Your task to perform on an android device: change timer sound Image 0: 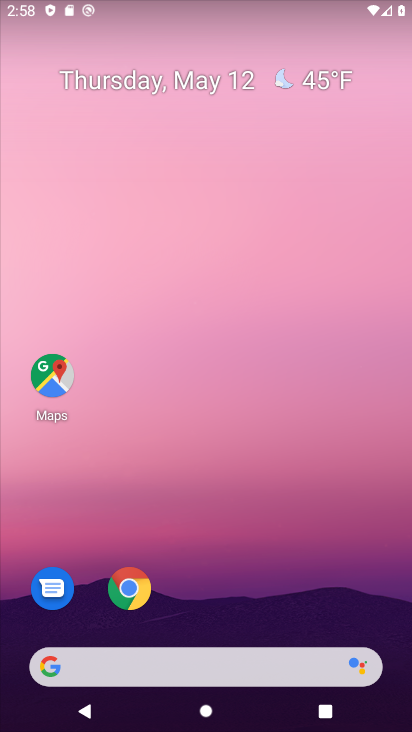
Step 0: drag from (229, 574) to (244, 273)
Your task to perform on an android device: change timer sound Image 1: 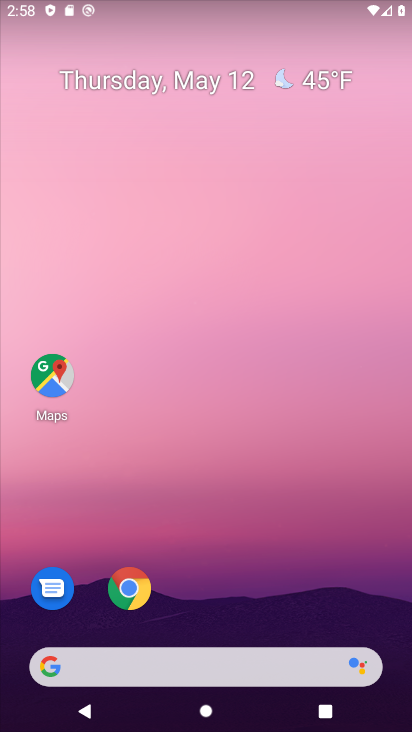
Step 1: drag from (244, 579) to (286, 61)
Your task to perform on an android device: change timer sound Image 2: 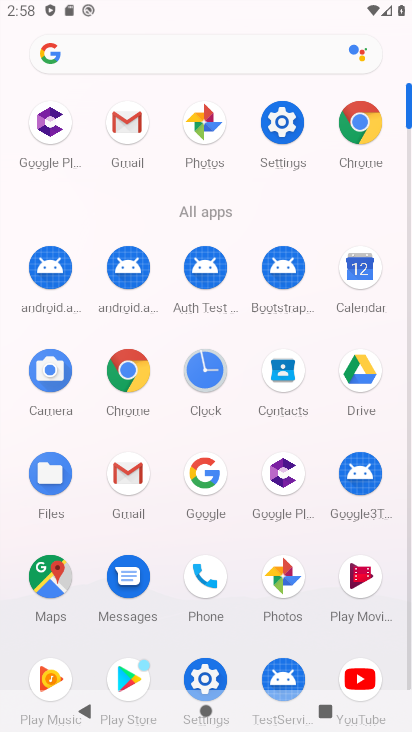
Step 2: click (205, 410)
Your task to perform on an android device: change timer sound Image 3: 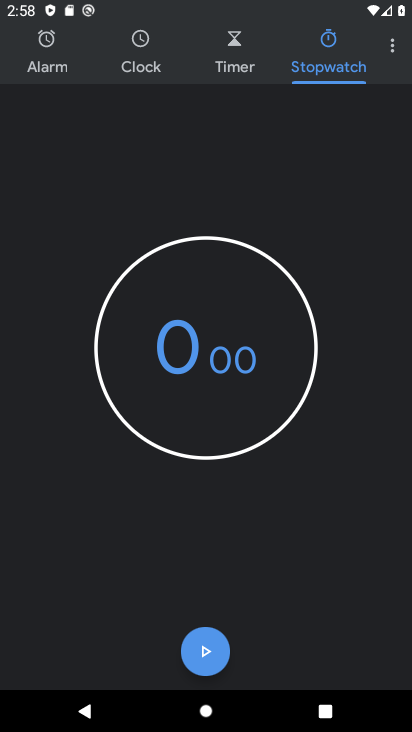
Step 3: click (211, 378)
Your task to perform on an android device: change timer sound Image 4: 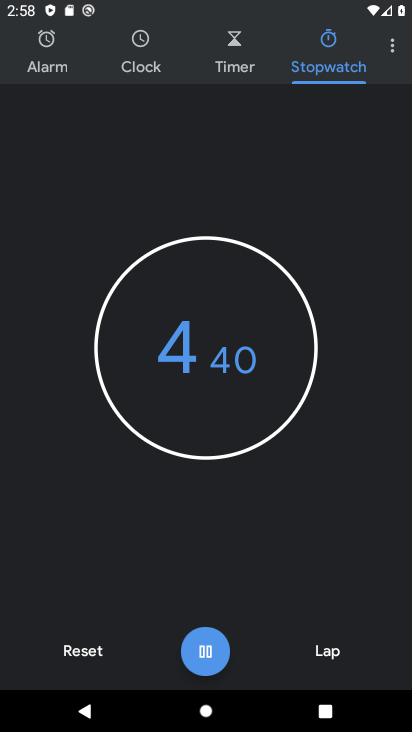
Step 4: click (235, 60)
Your task to perform on an android device: change timer sound Image 5: 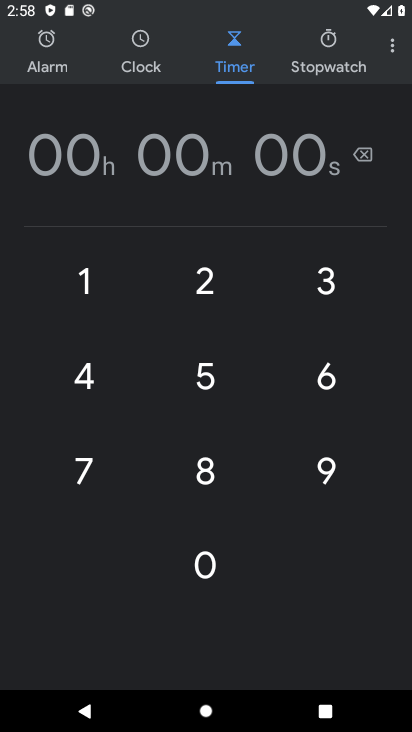
Step 5: click (395, 53)
Your task to perform on an android device: change timer sound Image 6: 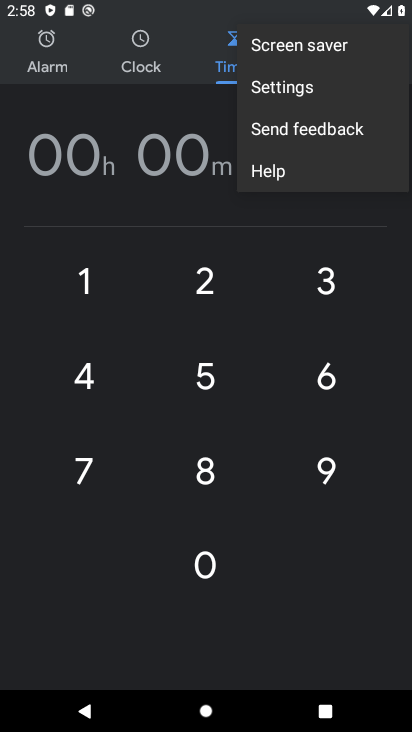
Step 6: click (327, 93)
Your task to perform on an android device: change timer sound Image 7: 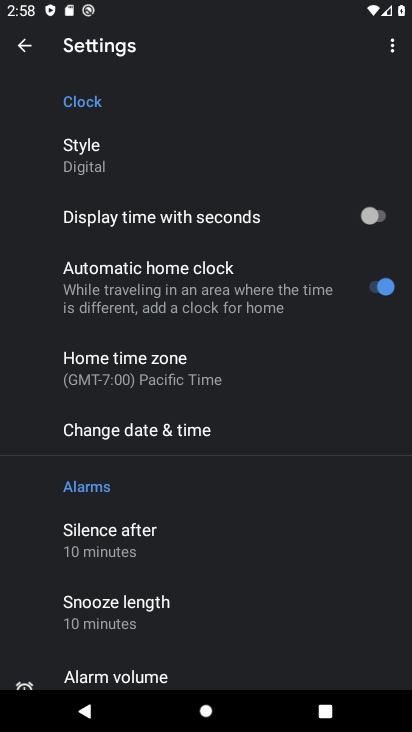
Step 7: drag from (195, 610) to (206, 264)
Your task to perform on an android device: change timer sound Image 8: 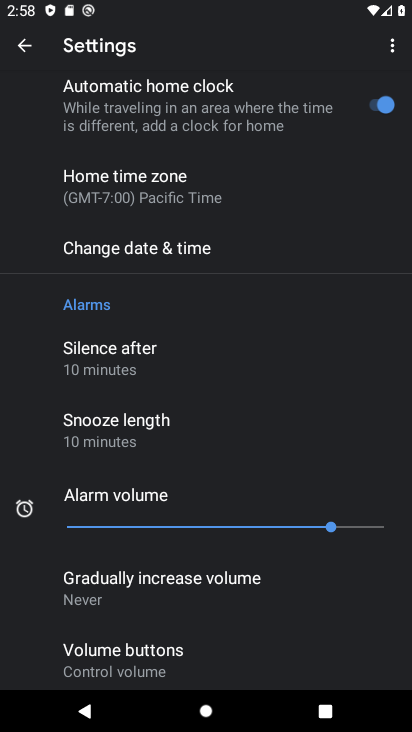
Step 8: drag from (183, 599) to (232, 277)
Your task to perform on an android device: change timer sound Image 9: 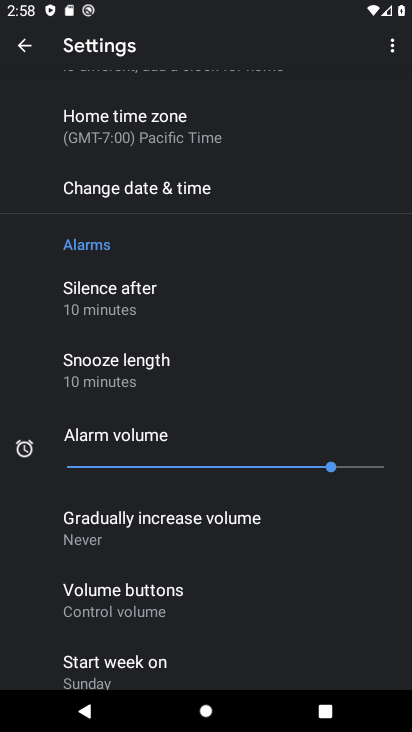
Step 9: drag from (238, 619) to (272, 256)
Your task to perform on an android device: change timer sound Image 10: 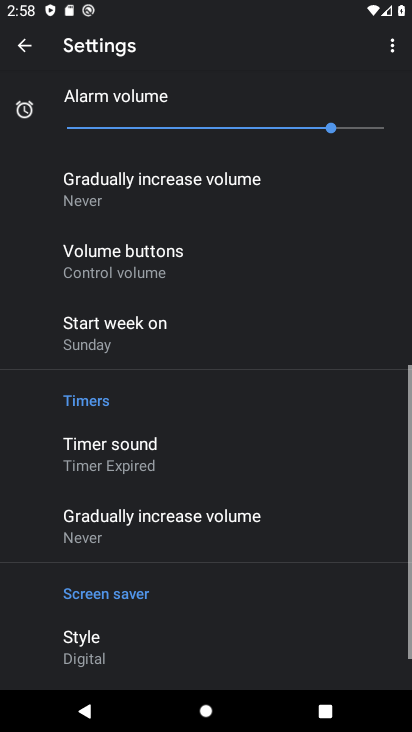
Step 10: drag from (152, 608) to (169, 205)
Your task to perform on an android device: change timer sound Image 11: 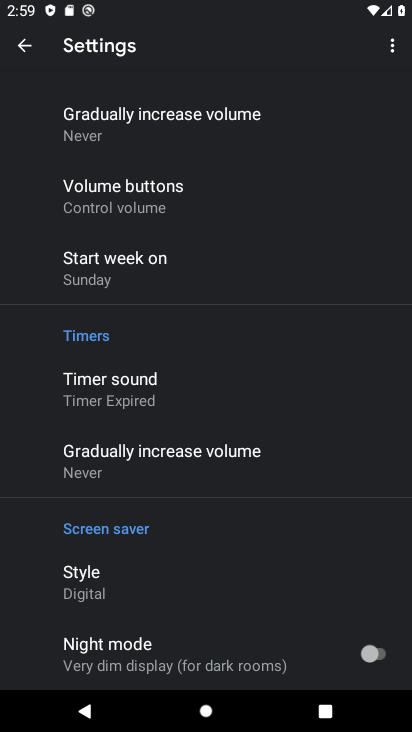
Step 11: click (95, 398)
Your task to perform on an android device: change timer sound Image 12: 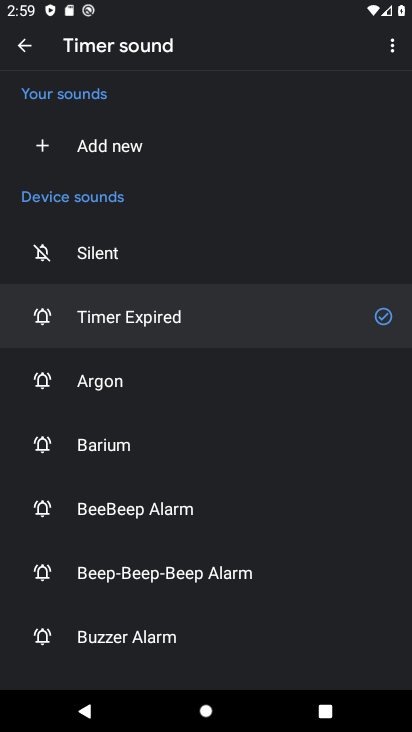
Step 12: click (108, 399)
Your task to perform on an android device: change timer sound Image 13: 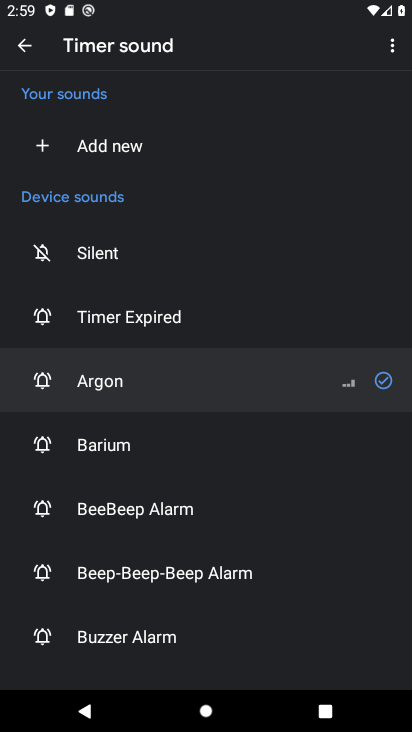
Step 13: task complete